Your task to perform on an android device: see tabs open on other devices in the chrome app Image 0: 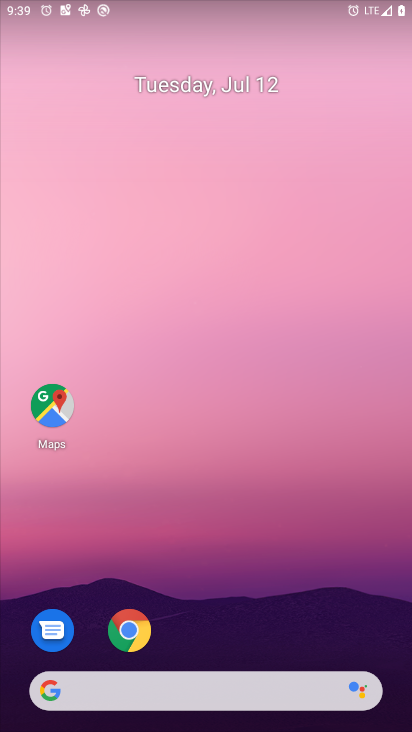
Step 0: press home button
Your task to perform on an android device: see tabs open on other devices in the chrome app Image 1: 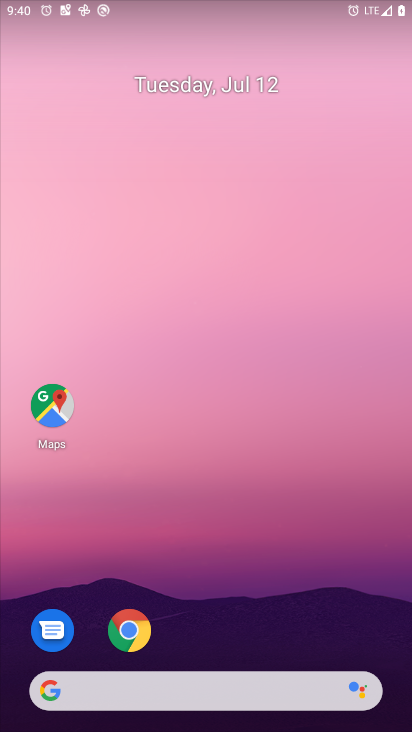
Step 1: click (124, 629)
Your task to perform on an android device: see tabs open on other devices in the chrome app Image 2: 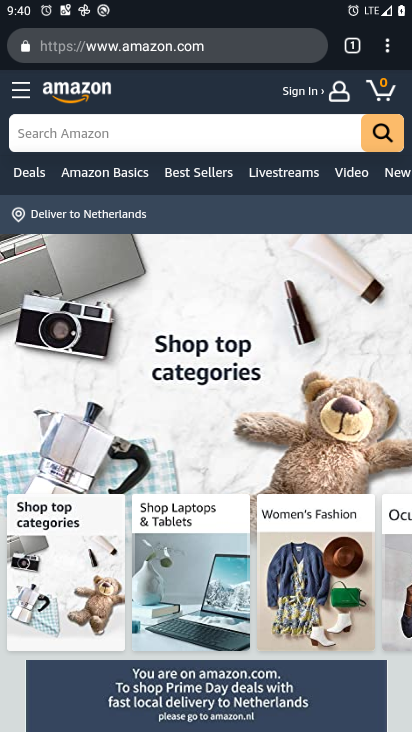
Step 2: drag from (389, 44) to (310, 218)
Your task to perform on an android device: see tabs open on other devices in the chrome app Image 3: 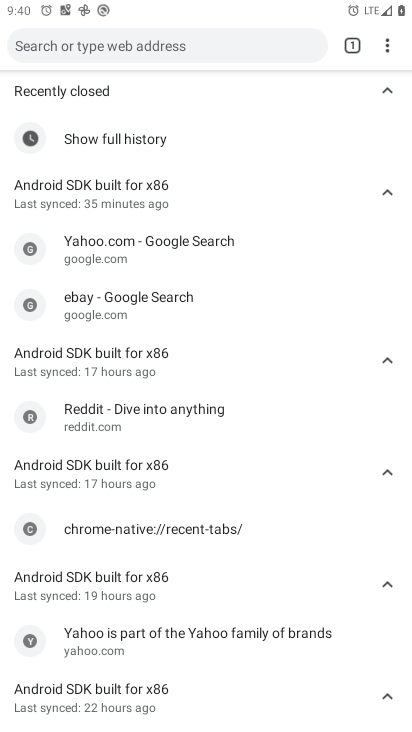
Step 3: click (386, 54)
Your task to perform on an android device: see tabs open on other devices in the chrome app Image 4: 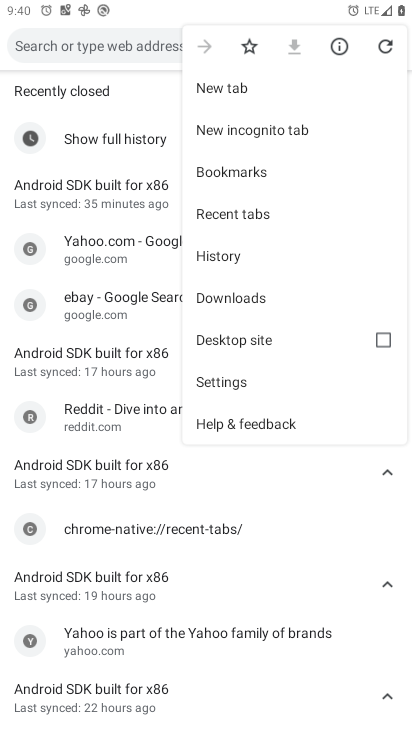
Step 4: drag from (186, 626) to (172, 106)
Your task to perform on an android device: see tabs open on other devices in the chrome app Image 5: 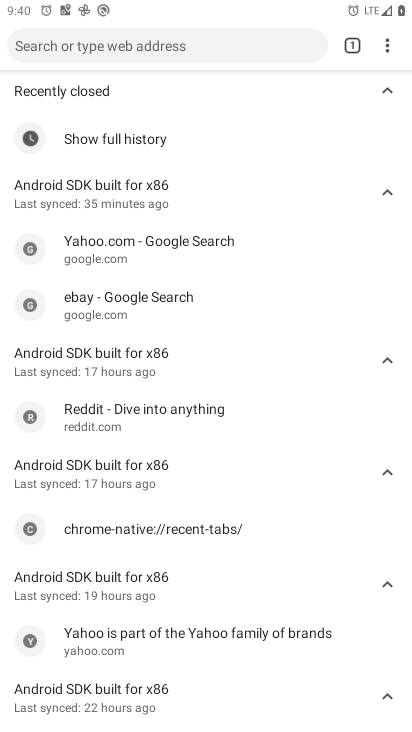
Step 5: click (382, 84)
Your task to perform on an android device: see tabs open on other devices in the chrome app Image 6: 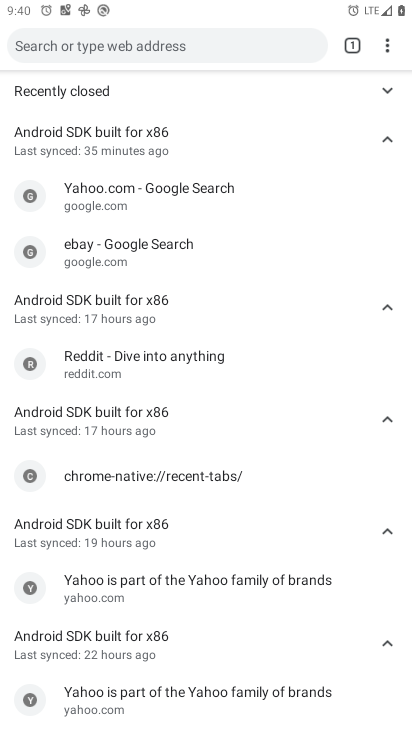
Step 6: task complete